Your task to perform on an android device: turn on sleep mode Image 0: 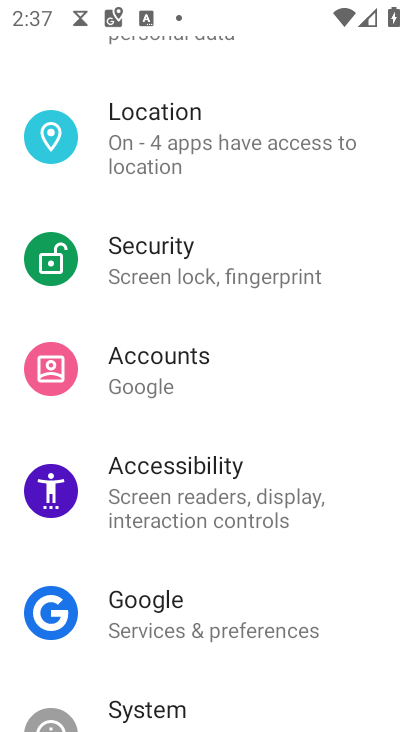
Step 0: press home button
Your task to perform on an android device: turn on sleep mode Image 1: 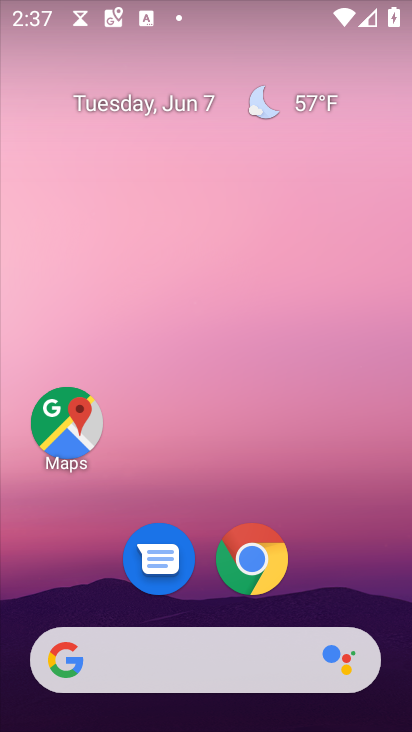
Step 1: drag from (102, 498) to (314, 164)
Your task to perform on an android device: turn on sleep mode Image 2: 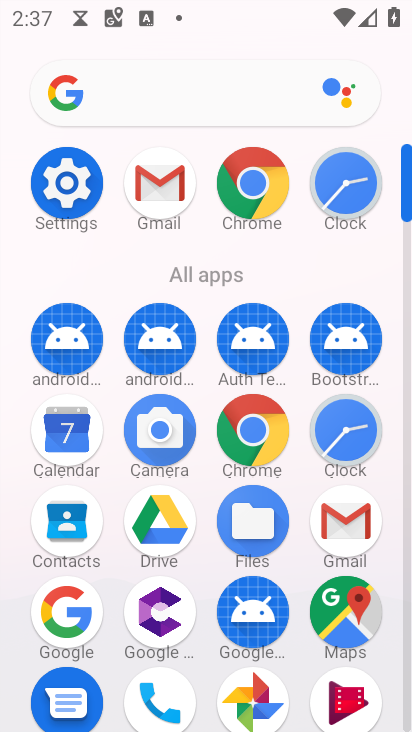
Step 2: click (60, 210)
Your task to perform on an android device: turn on sleep mode Image 3: 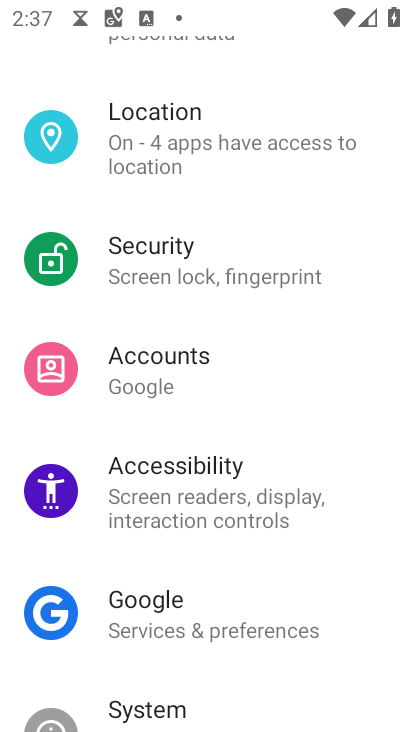
Step 3: task complete